Your task to perform on an android device: Open accessibility settings Image 0: 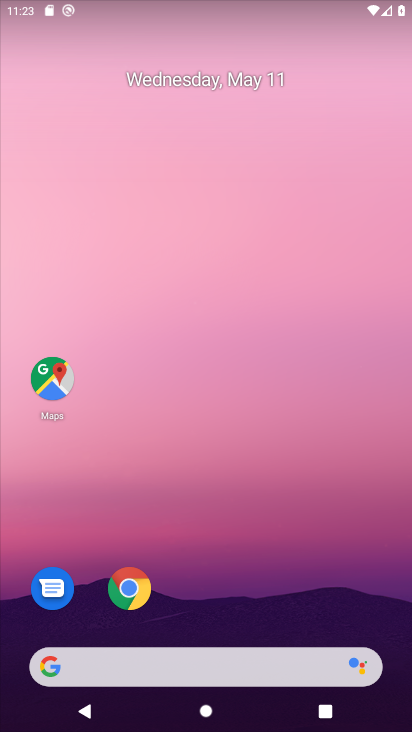
Step 0: drag from (211, 631) to (219, 105)
Your task to perform on an android device: Open accessibility settings Image 1: 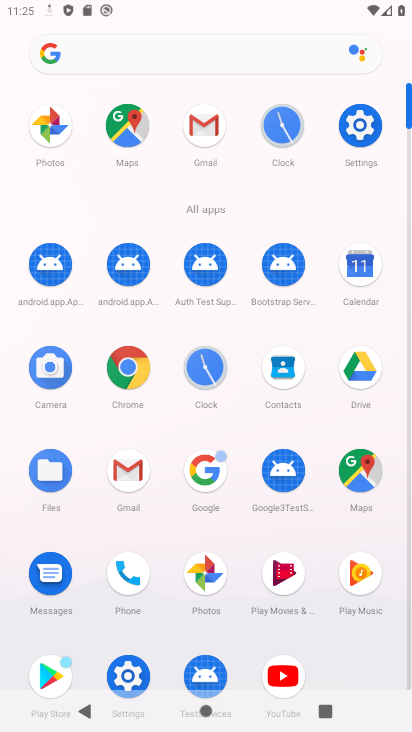
Step 1: click (361, 125)
Your task to perform on an android device: Open accessibility settings Image 2: 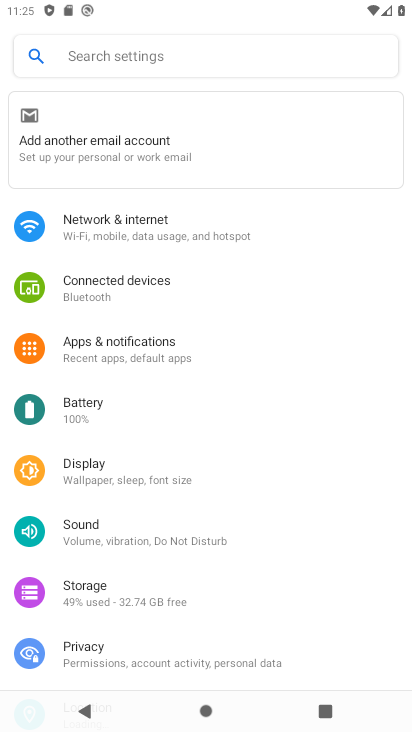
Step 2: drag from (133, 611) to (183, 262)
Your task to perform on an android device: Open accessibility settings Image 3: 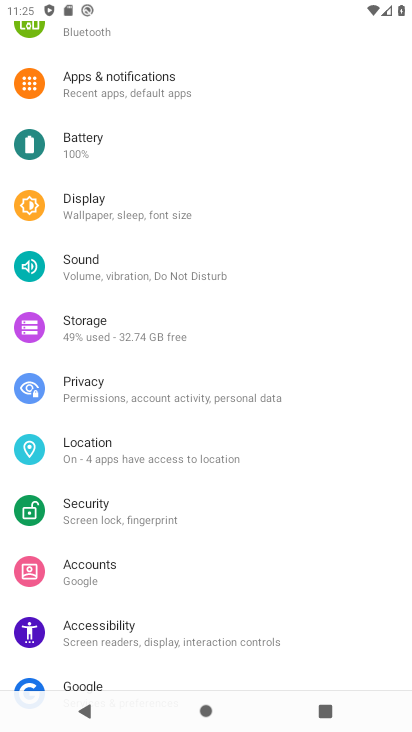
Step 3: click (97, 634)
Your task to perform on an android device: Open accessibility settings Image 4: 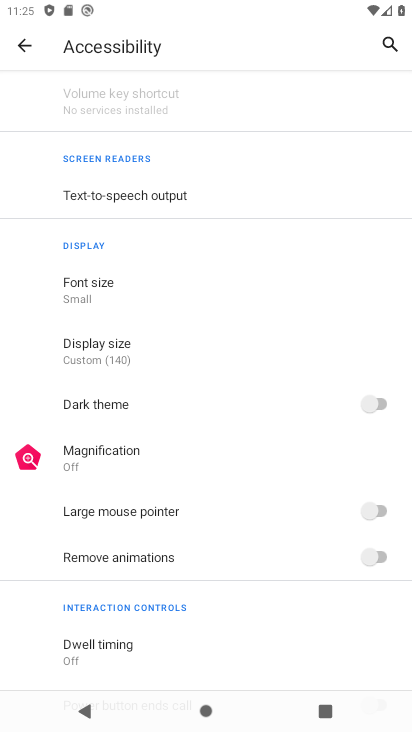
Step 4: task complete